Your task to perform on an android device: Open Chrome and go to the settings page Image 0: 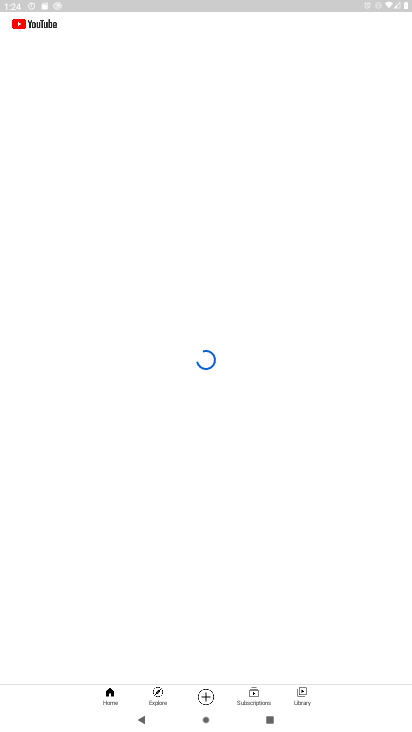
Step 0: click (207, 690)
Your task to perform on an android device: Open Chrome and go to the settings page Image 1: 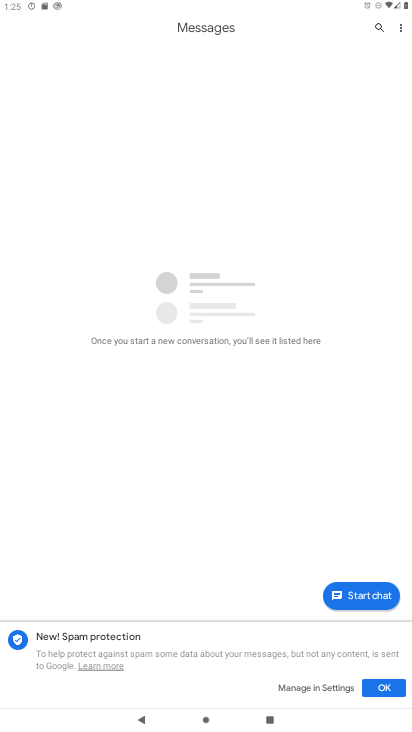
Step 1: press home button
Your task to perform on an android device: Open Chrome and go to the settings page Image 2: 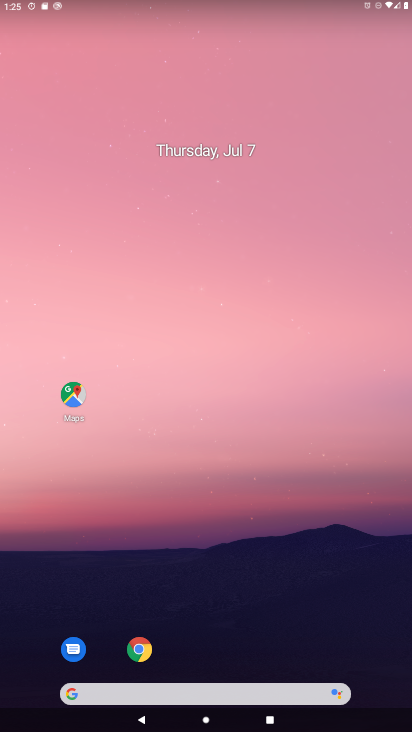
Step 2: click (137, 647)
Your task to perform on an android device: Open Chrome and go to the settings page Image 3: 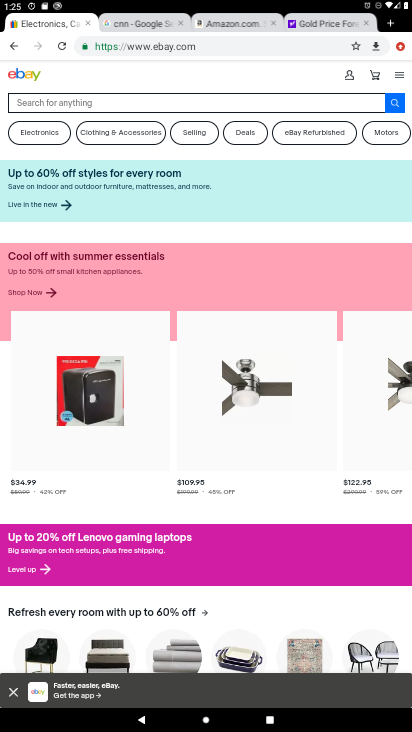
Step 3: click (399, 41)
Your task to perform on an android device: Open Chrome and go to the settings page Image 4: 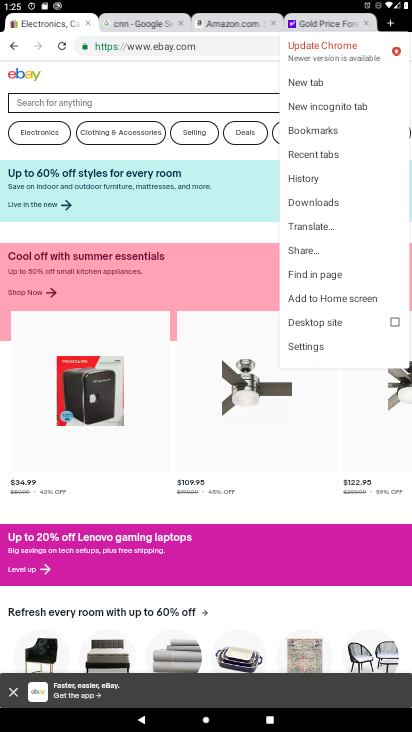
Step 4: click (291, 333)
Your task to perform on an android device: Open Chrome and go to the settings page Image 5: 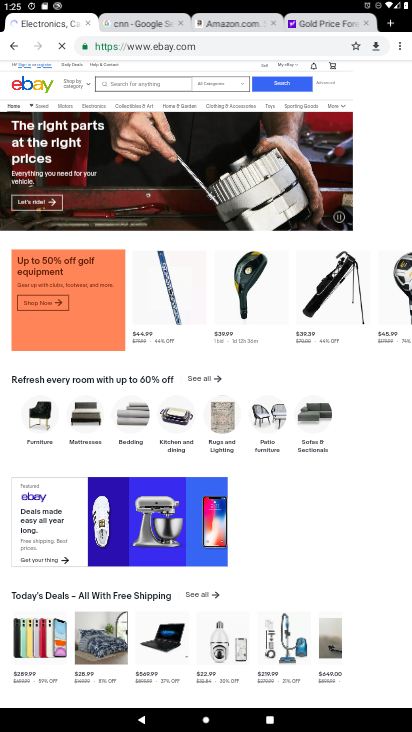
Step 5: click (392, 45)
Your task to perform on an android device: Open Chrome and go to the settings page Image 6: 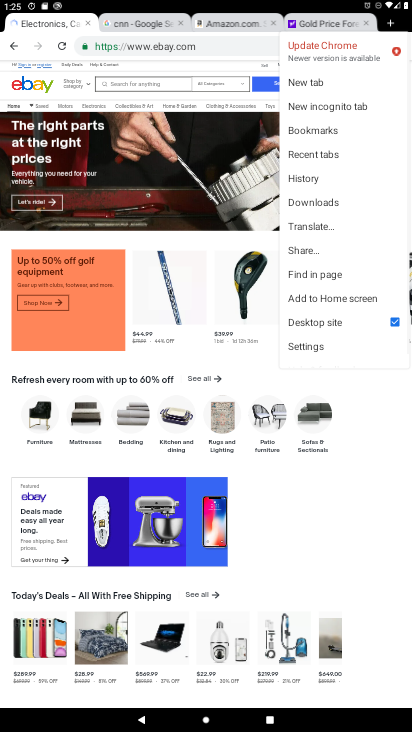
Step 6: click (300, 341)
Your task to perform on an android device: Open Chrome and go to the settings page Image 7: 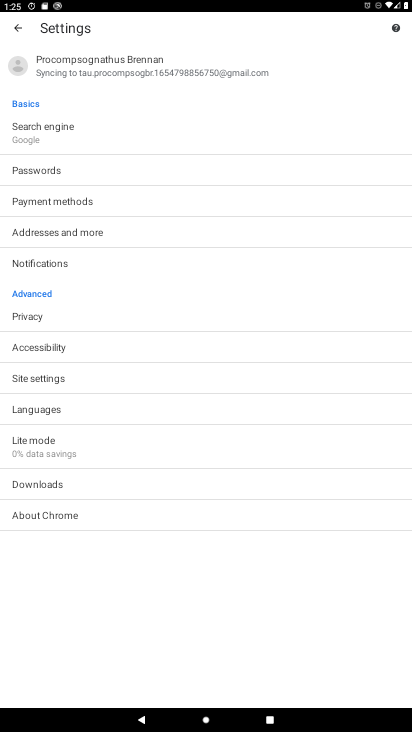
Step 7: task complete